Your task to perform on an android device: toggle translation in the chrome app Image 0: 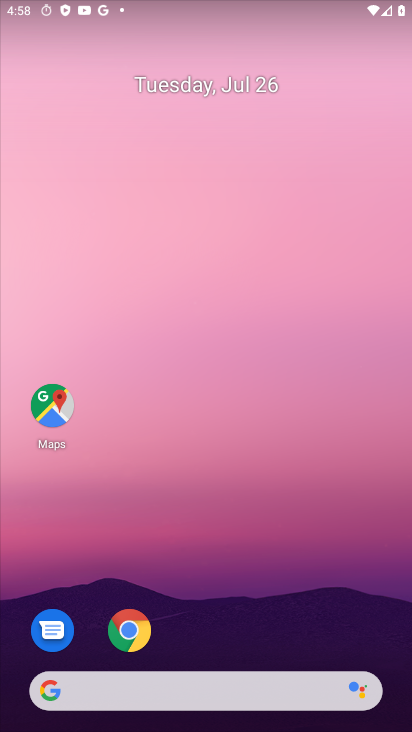
Step 0: drag from (285, 576) to (235, 27)
Your task to perform on an android device: toggle translation in the chrome app Image 1: 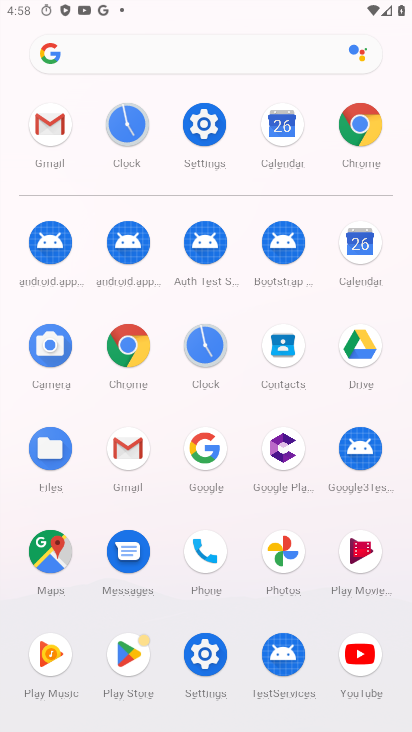
Step 1: click (357, 120)
Your task to perform on an android device: toggle translation in the chrome app Image 2: 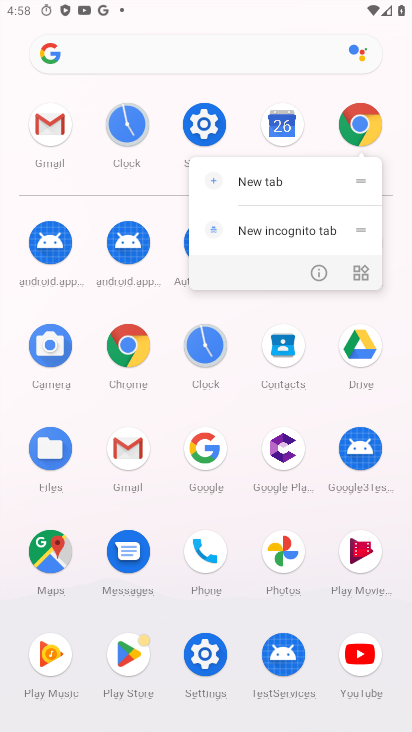
Step 2: click (359, 124)
Your task to perform on an android device: toggle translation in the chrome app Image 3: 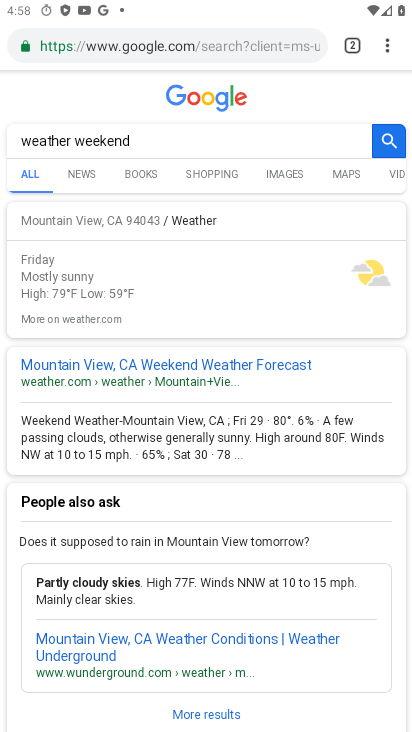
Step 3: drag from (389, 42) to (244, 498)
Your task to perform on an android device: toggle translation in the chrome app Image 4: 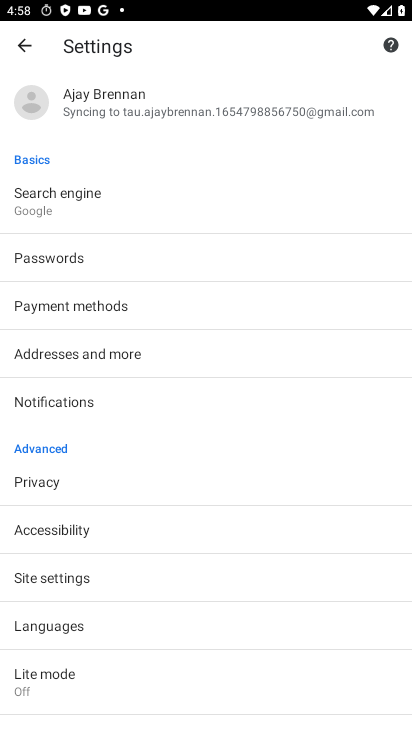
Step 4: click (67, 622)
Your task to perform on an android device: toggle translation in the chrome app Image 5: 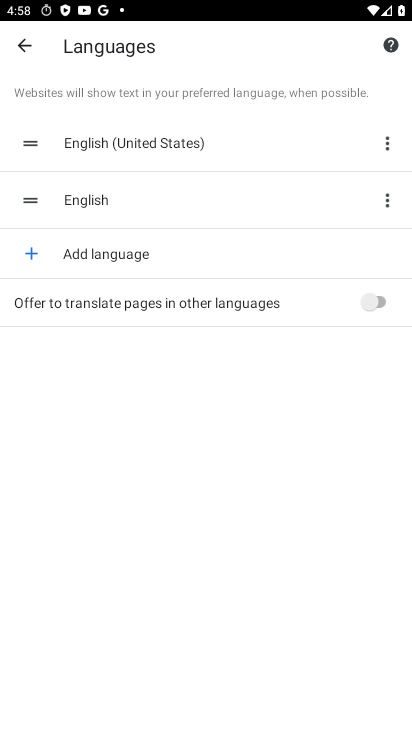
Step 5: click (365, 301)
Your task to perform on an android device: toggle translation in the chrome app Image 6: 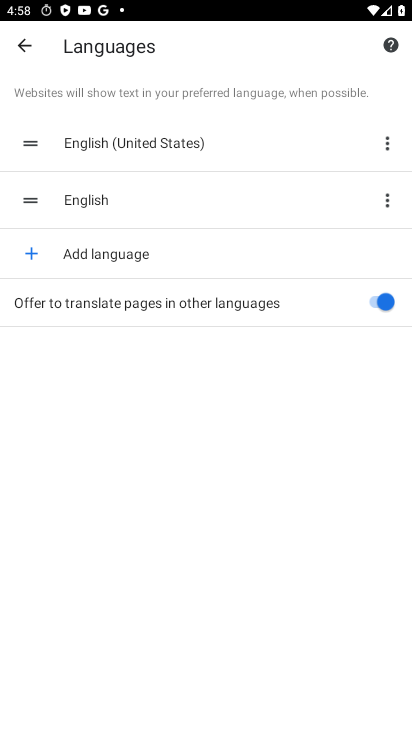
Step 6: task complete